Your task to perform on an android device: Go to Maps Image 0: 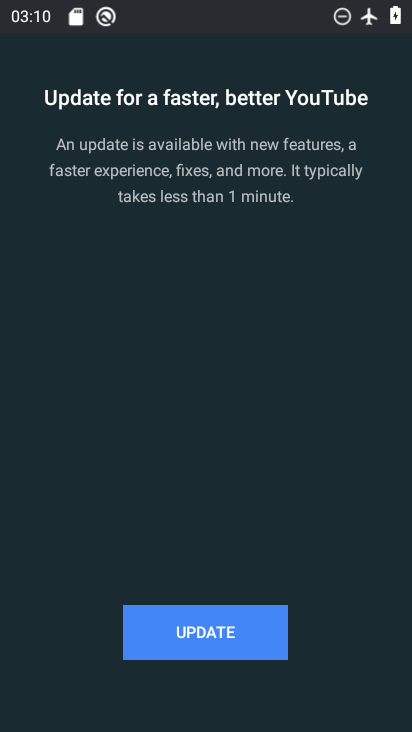
Step 0: press home button
Your task to perform on an android device: Go to Maps Image 1: 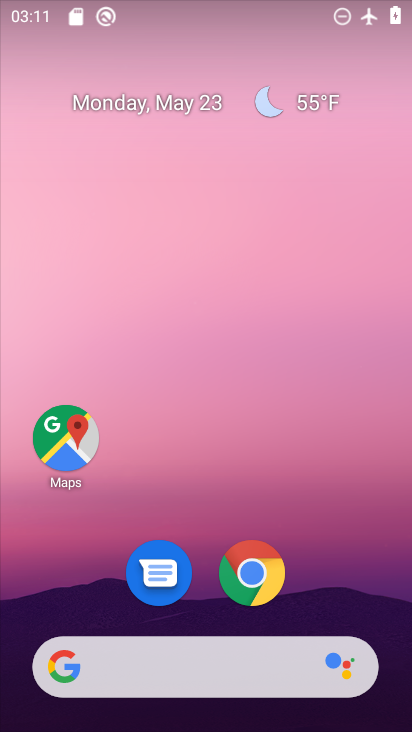
Step 1: click (76, 433)
Your task to perform on an android device: Go to Maps Image 2: 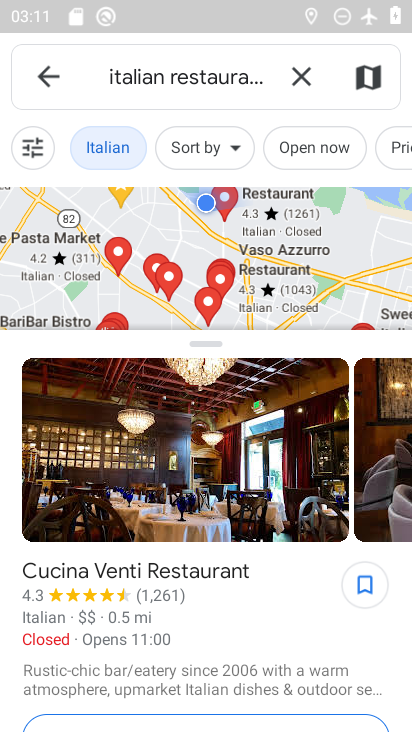
Step 2: task complete